Your task to perform on an android device: empty trash in the gmail app Image 0: 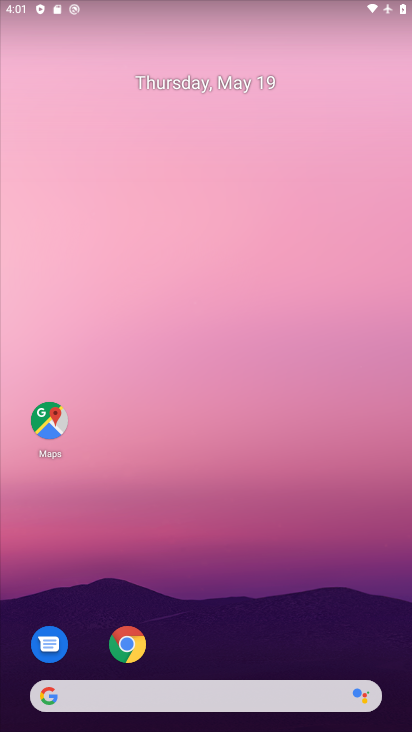
Step 0: drag from (262, 593) to (239, 20)
Your task to perform on an android device: empty trash in the gmail app Image 1: 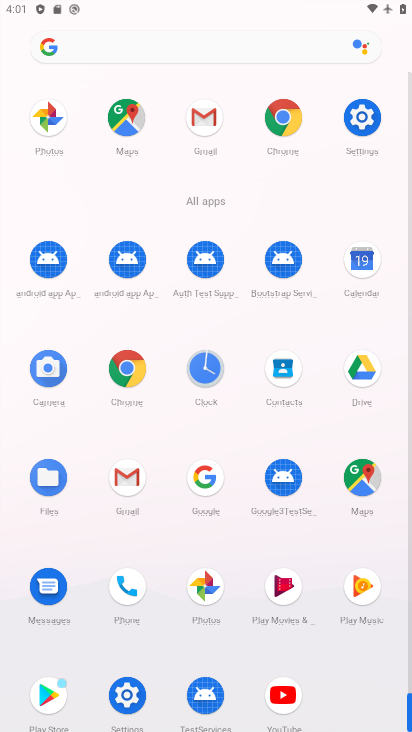
Step 1: click (128, 474)
Your task to perform on an android device: empty trash in the gmail app Image 2: 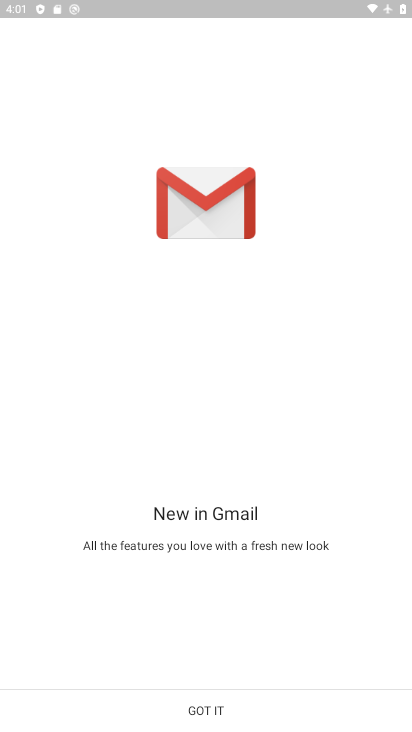
Step 2: click (214, 701)
Your task to perform on an android device: empty trash in the gmail app Image 3: 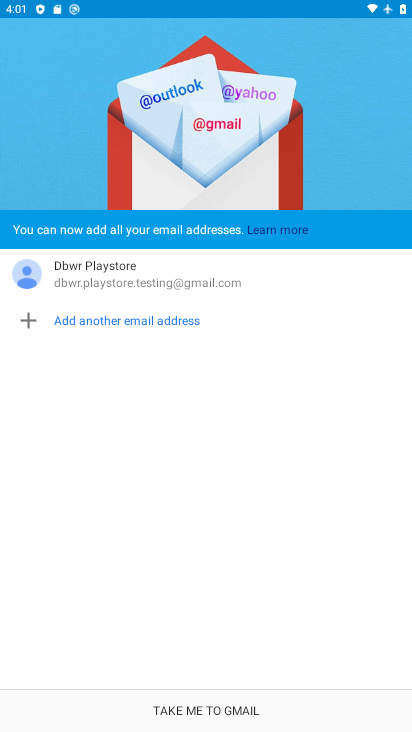
Step 3: click (213, 700)
Your task to perform on an android device: empty trash in the gmail app Image 4: 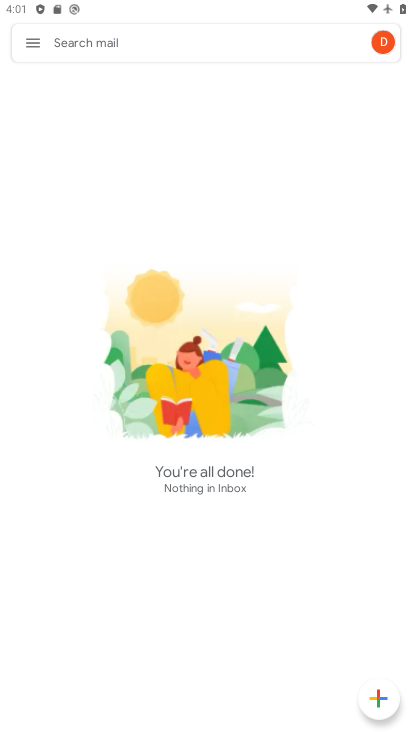
Step 4: click (33, 50)
Your task to perform on an android device: empty trash in the gmail app Image 5: 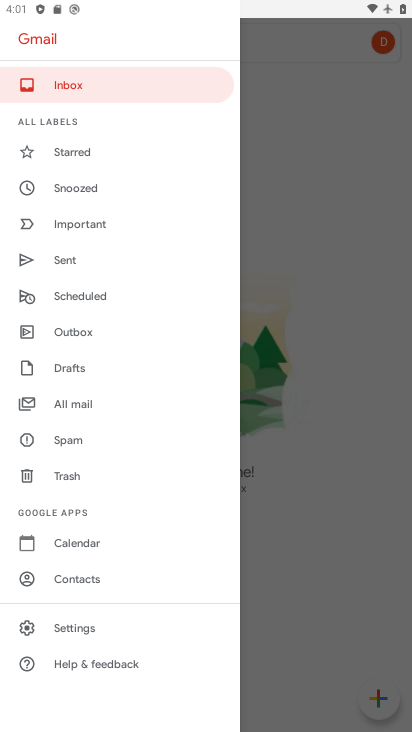
Step 5: click (78, 479)
Your task to perform on an android device: empty trash in the gmail app Image 6: 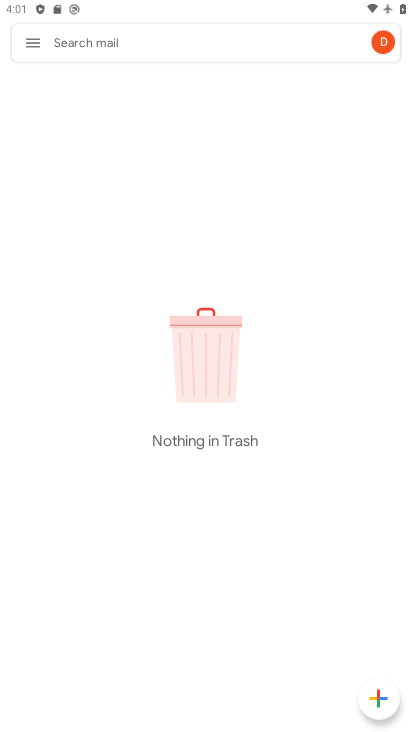
Step 6: task complete